Your task to perform on an android device: Open the web browser Image 0: 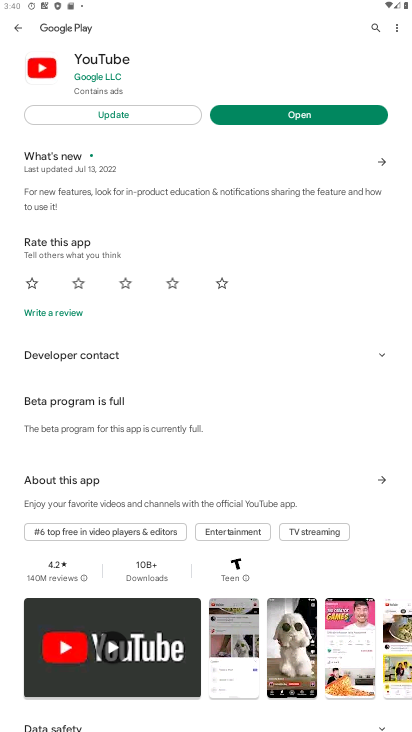
Step 0: press home button
Your task to perform on an android device: Open the web browser Image 1: 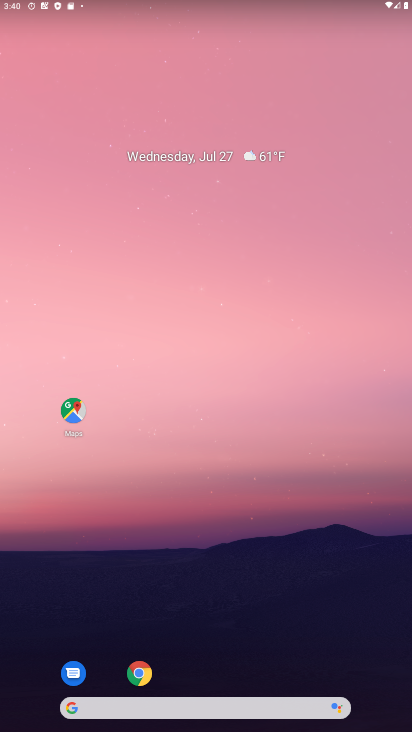
Step 1: task complete